Your task to perform on an android device: move an email to a new category in the gmail app Image 0: 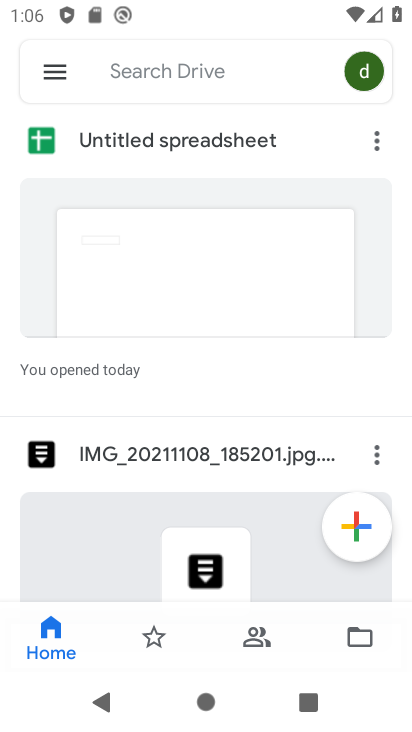
Step 0: press home button
Your task to perform on an android device: move an email to a new category in the gmail app Image 1: 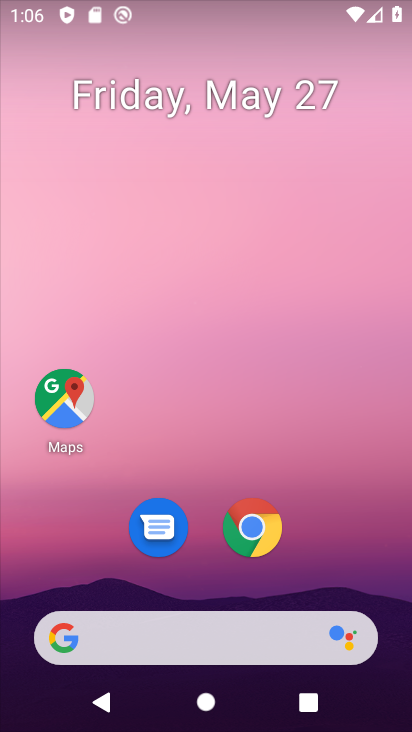
Step 1: drag from (352, 545) to (378, 95)
Your task to perform on an android device: move an email to a new category in the gmail app Image 2: 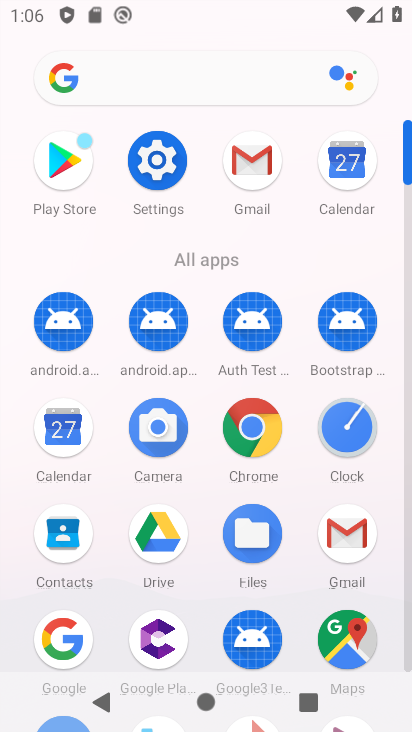
Step 2: click (335, 539)
Your task to perform on an android device: move an email to a new category in the gmail app Image 3: 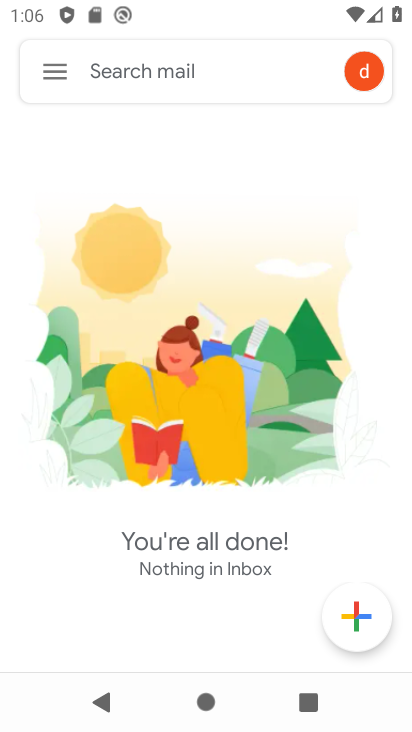
Step 3: click (56, 68)
Your task to perform on an android device: move an email to a new category in the gmail app Image 4: 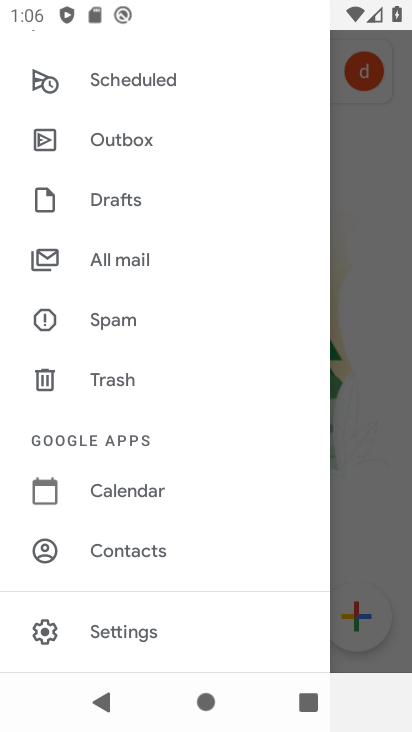
Step 4: click (158, 263)
Your task to perform on an android device: move an email to a new category in the gmail app Image 5: 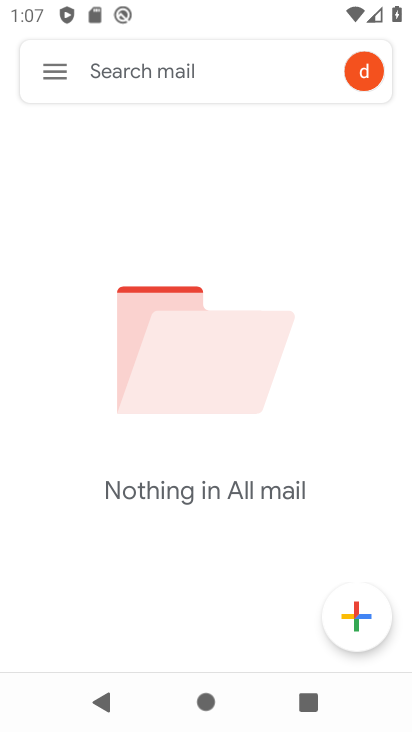
Step 5: task complete